Your task to perform on an android device: turn off priority inbox in the gmail app Image 0: 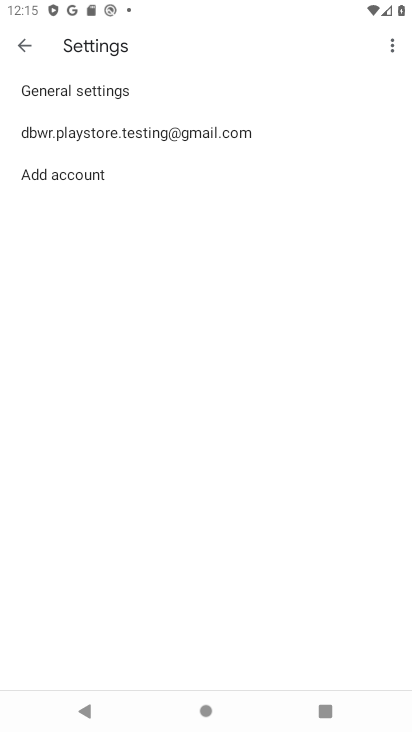
Step 0: press home button
Your task to perform on an android device: turn off priority inbox in the gmail app Image 1: 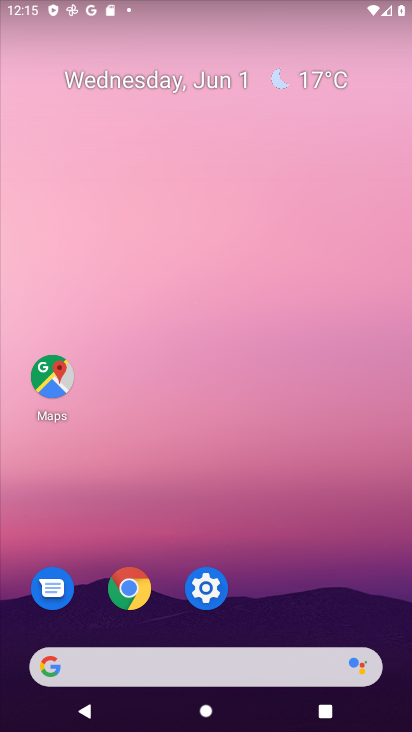
Step 1: drag from (252, 682) to (259, 118)
Your task to perform on an android device: turn off priority inbox in the gmail app Image 2: 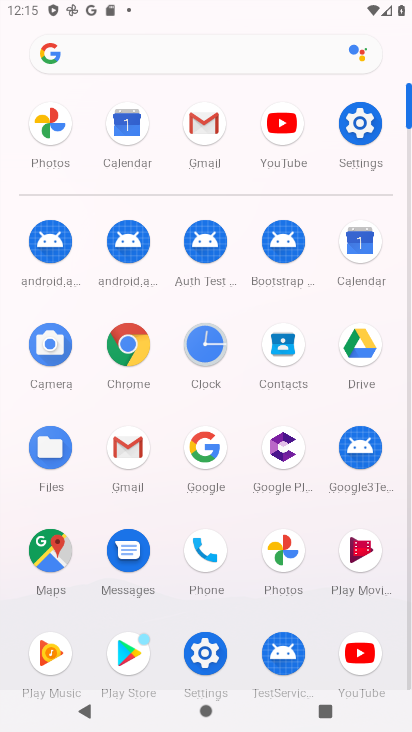
Step 2: click (141, 460)
Your task to perform on an android device: turn off priority inbox in the gmail app Image 3: 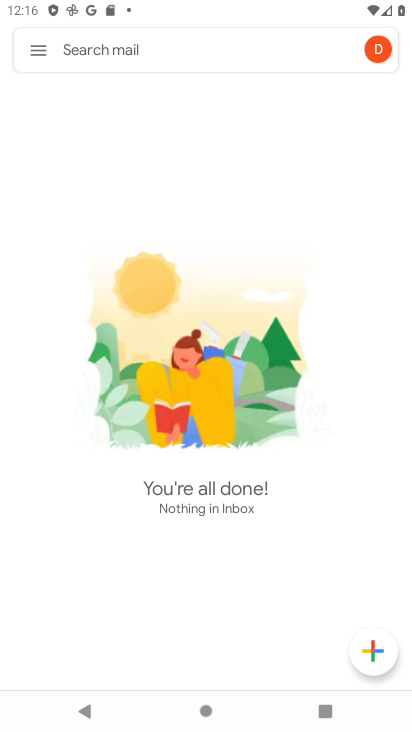
Step 3: click (41, 56)
Your task to perform on an android device: turn off priority inbox in the gmail app Image 4: 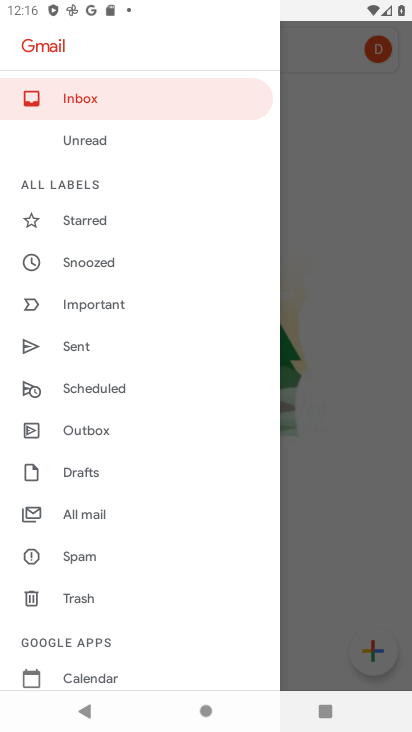
Step 4: drag from (107, 589) to (183, 321)
Your task to perform on an android device: turn off priority inbox in the gmail app Image 5: 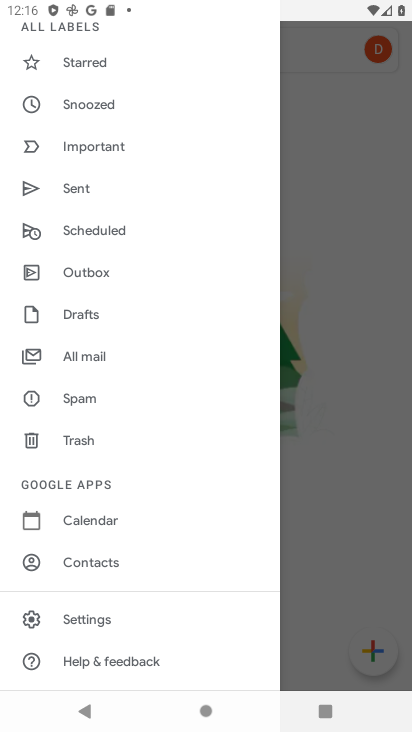
Step 5: click (78, 625)
Your task to perform on an android device: turn off priority inbox in the gmail app Image 6: 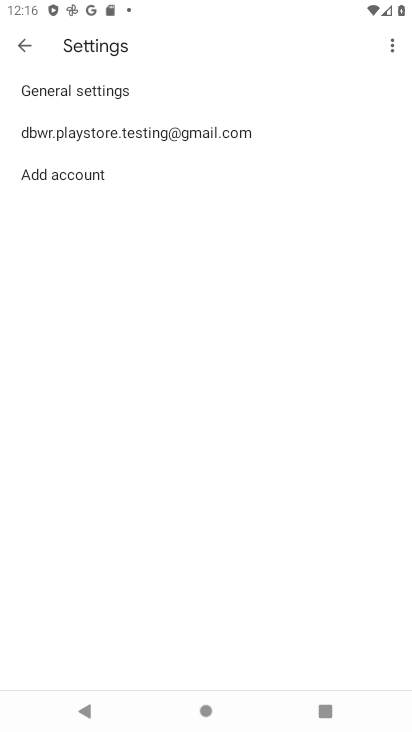
Step 6: click (99, 127)
Your task to perform on an android device: turn off priority inbox in the gmail app Image 7: 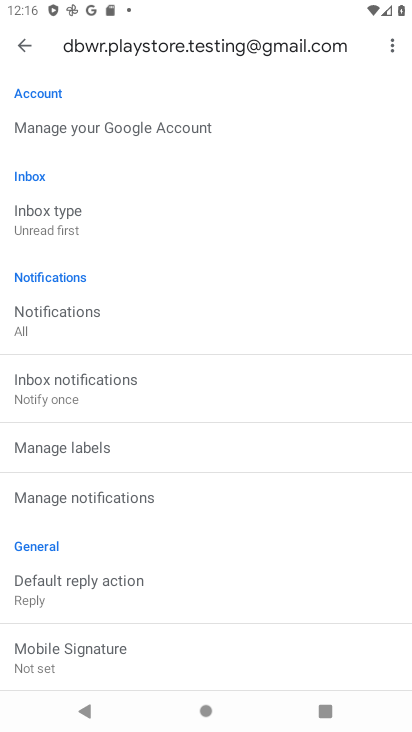
Step 7: drag from (108, 577) to (109, 501)
Your task to perform on an android device: turn off priority inbox in the gmail app Image 8: 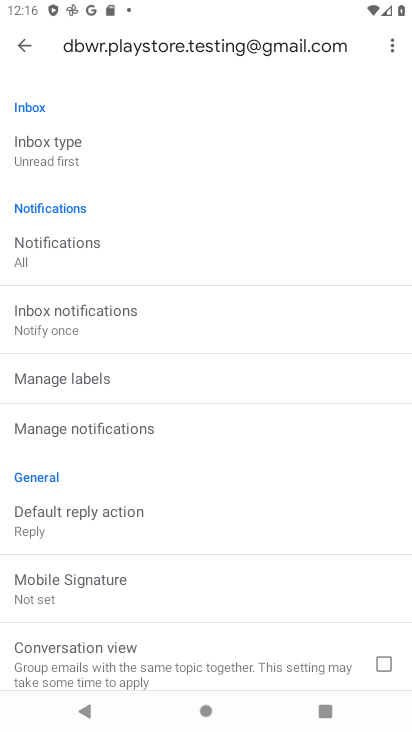
Step 8: click (59, 147)
Your task to perform on an android device: turn off priority inbox in the gmail app Image 9: 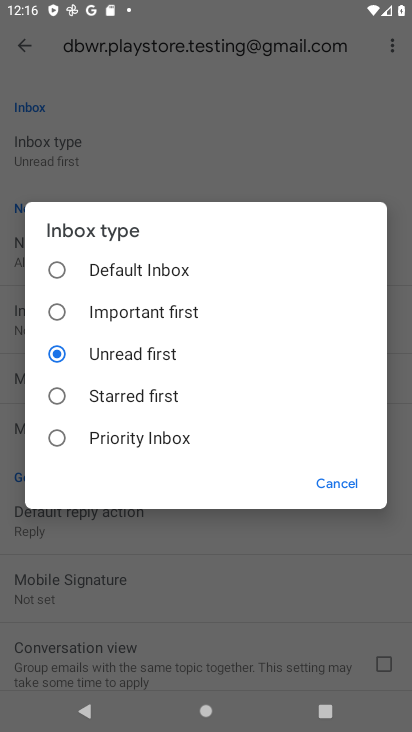
Step 9: task complete